Your task to perform on an android device: Do I have any events this weekend? Image 0: 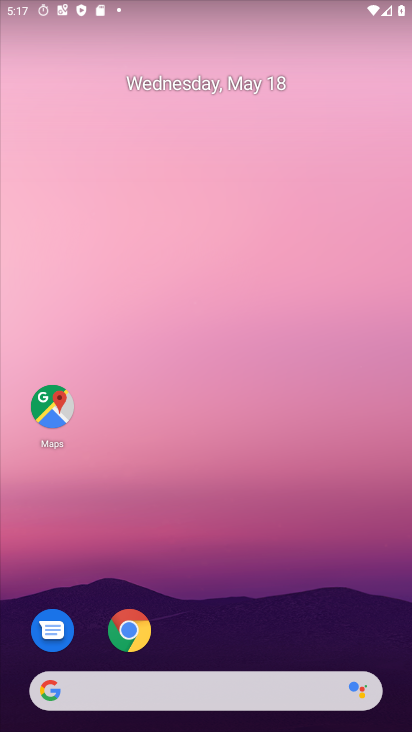
Step 0: click (199, 281)
Your task to perform on an android device: Do I have any events this weekend? Image 1: 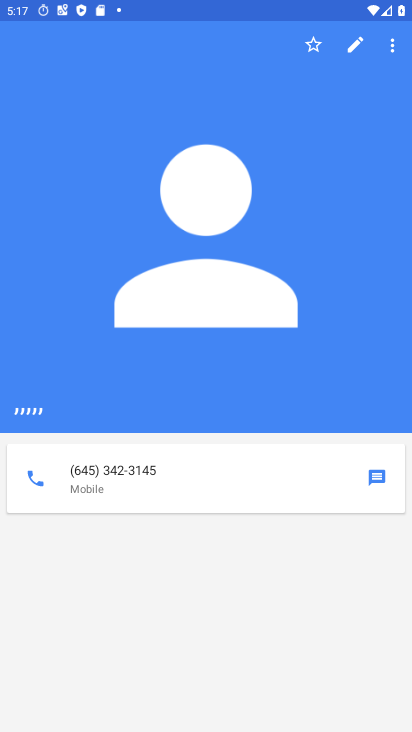
Step 1: press home button
Your task to perform on an android device: Do I have any events this weekend? Image 2: 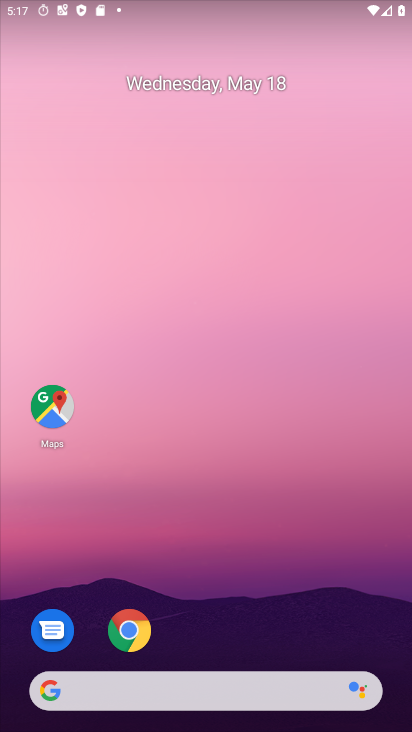
Step 2: drag from (169, 680) to (179, 253)
Your task to perform on an android device: Do I have any events this weekend? Image 3: 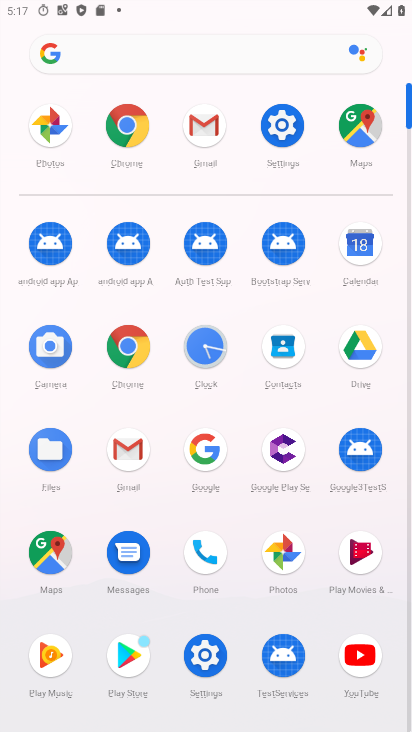
Step 3: click (367, 245)
Your task to perform on an android device: Do I have any events this weekend? Image 4: 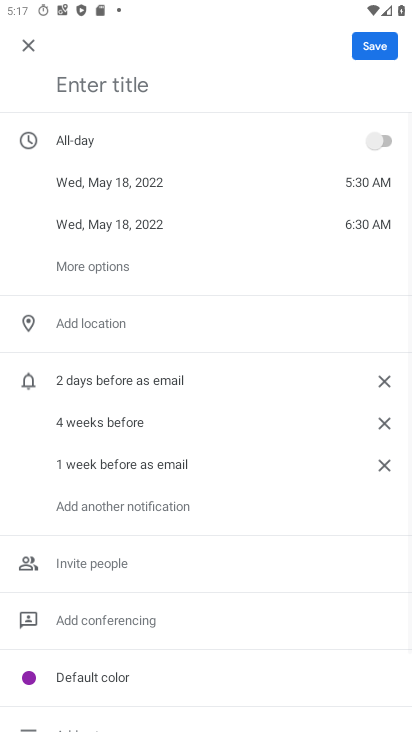
Step 4: click (25, 51)
Your task to perform on an android device: Do I have any events this weekend? Image 5: 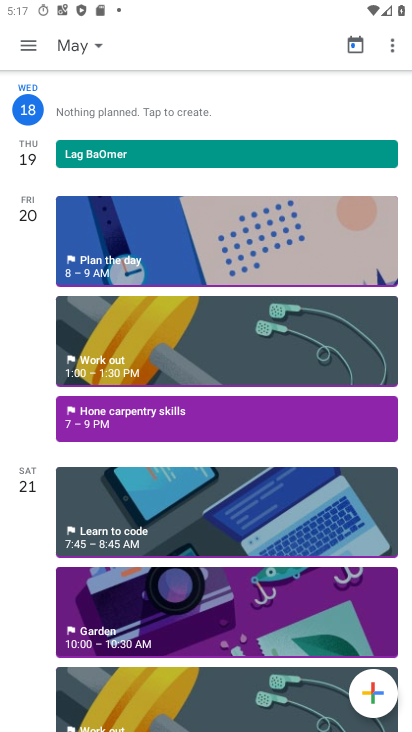
Step 5: click (78, 48)
Your task to perform on an android device: Do I have any events this weekend? Image 6: 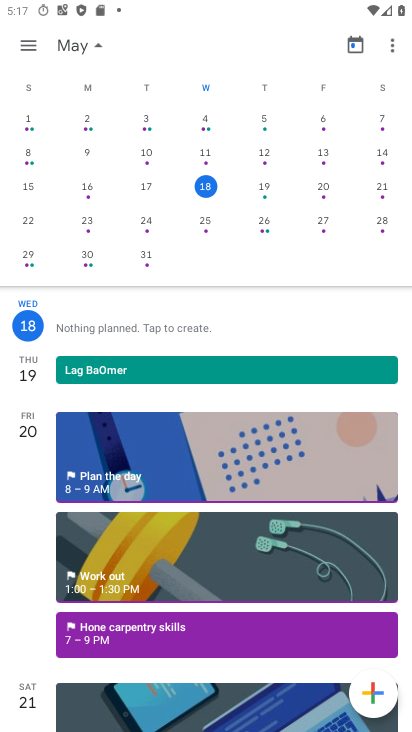
Step 6: click (159, 451)
Your task to perform on an android device: Do I have any events this weekend? Image 7: 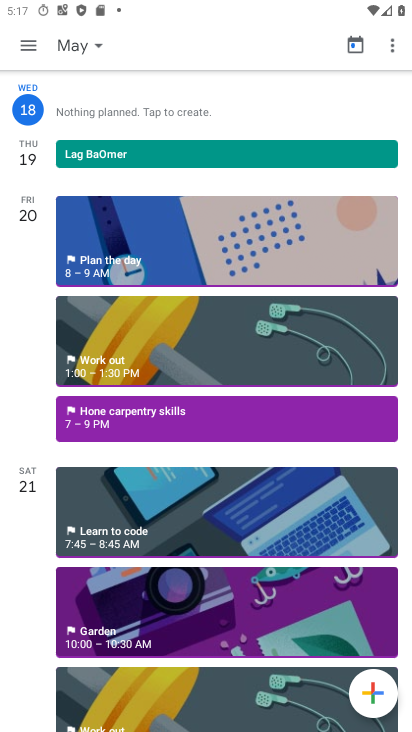
Step 7: click (125, 517)
Your task to perform on an android device: Do I have any events this weekend? Image 8: 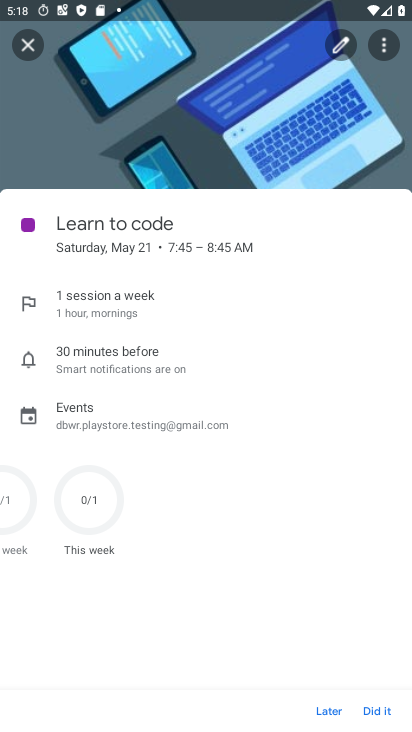
Step 8: task complete